Your task to perform on an android device: Open Youtube and go to the subscriptions tab Image 0: 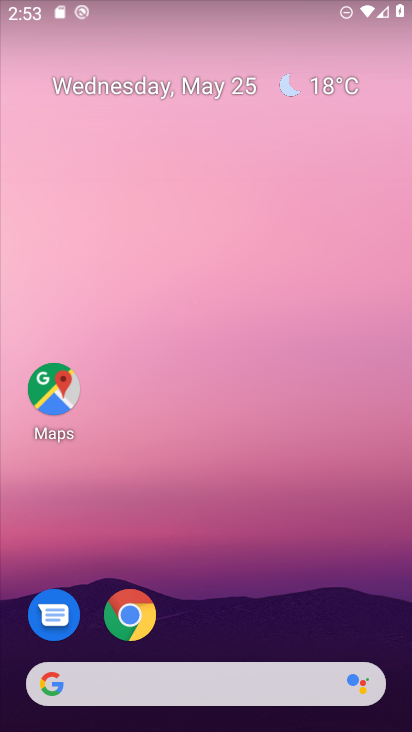
Step 0: drag from (244, 586) to (277, 41)
Your task to perform on an android device: Open Youtube and go to the subscriptions tab Image 1: 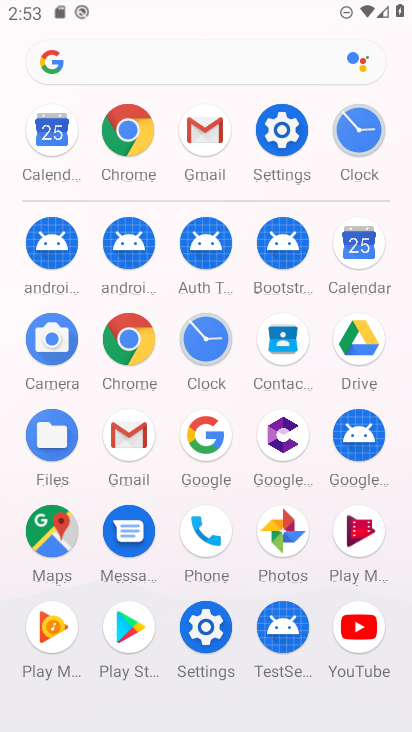
Step 1: click (360, 618)
Your task to perform on an android device: Open Youtube and go to the subscriptions tab Image 2: 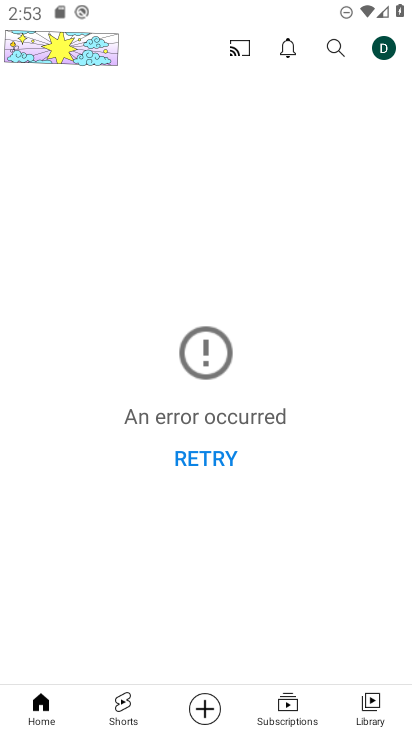
Step 2: click (301, 705)
Your task to perform on an android device: Open Youtube and go to the subscriptions tab Image 3: 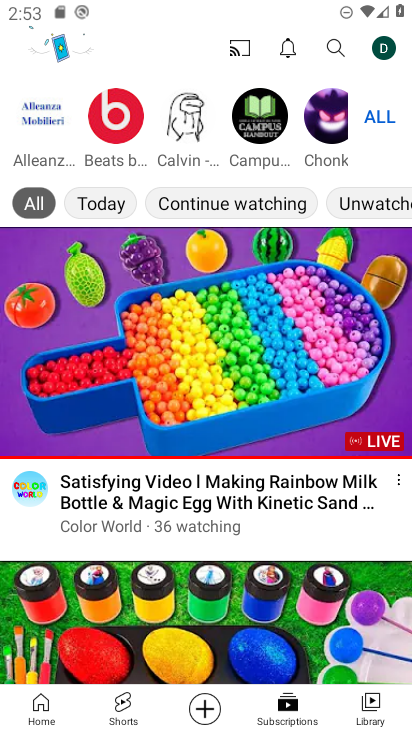
Step 3: task complete